Your task to perform on an android device: turn off improve location accuracy Image 0: 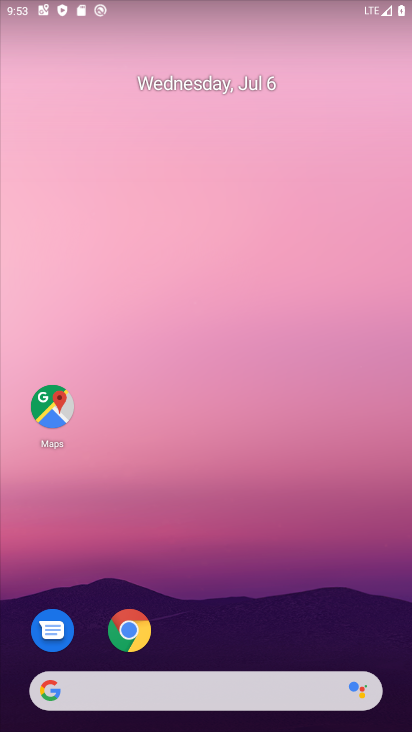
Step 0: drag from (375, 623) to (339, 131)
Your task to perform on an android device: turn off improve location accuracy Image 1: 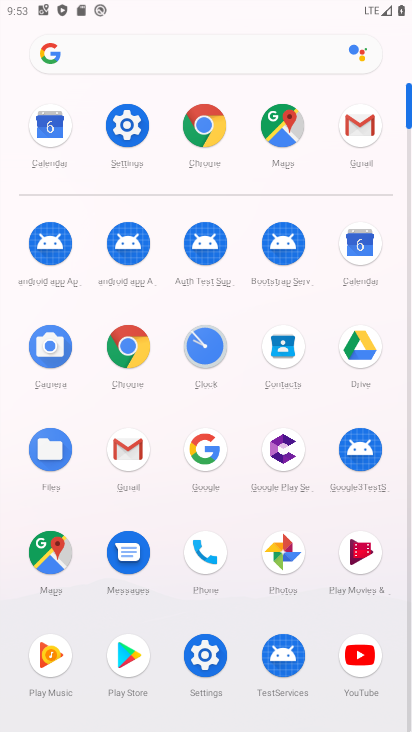
Step 1: click (204, 656)
Your task to perform on an android device: turn off improve location accuracy Image 2: 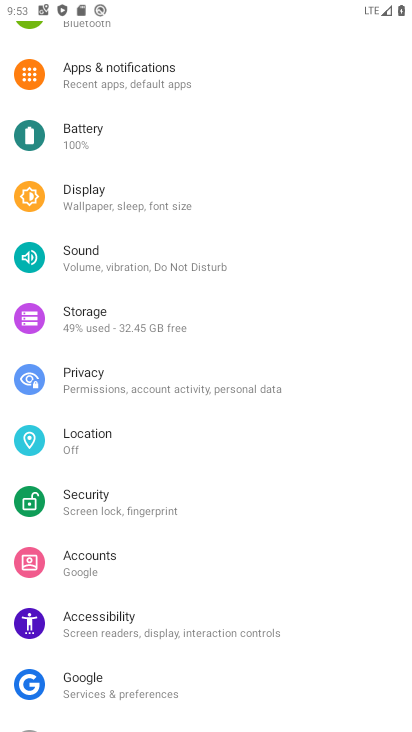
Step 2: click (88, 432)
Your task to perform on an android device: turn off improve location accuracy Image 3: 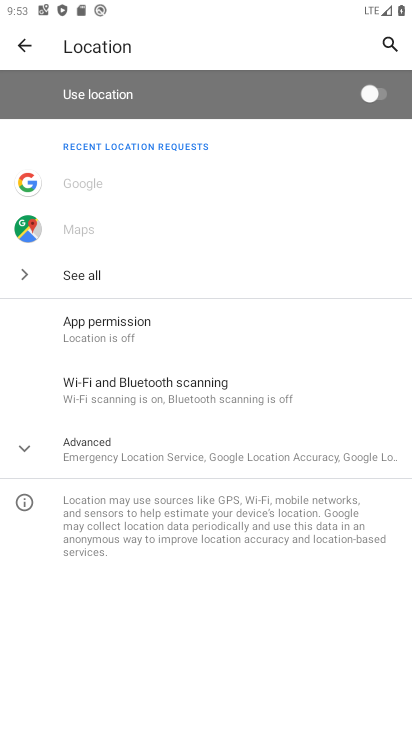
Step 3: click (50, 446)
Your task to perform on an android device: turn off improve location accuracy Image 4: 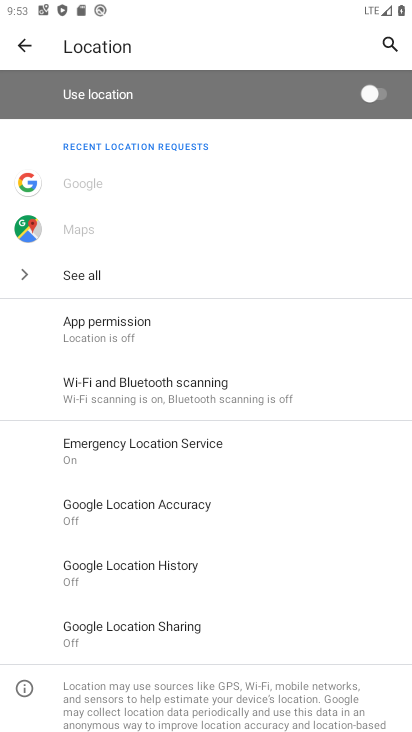
Step 4: click (81, 510)
Your task to perform on an android device: turn off improve location accuracy Image 5: 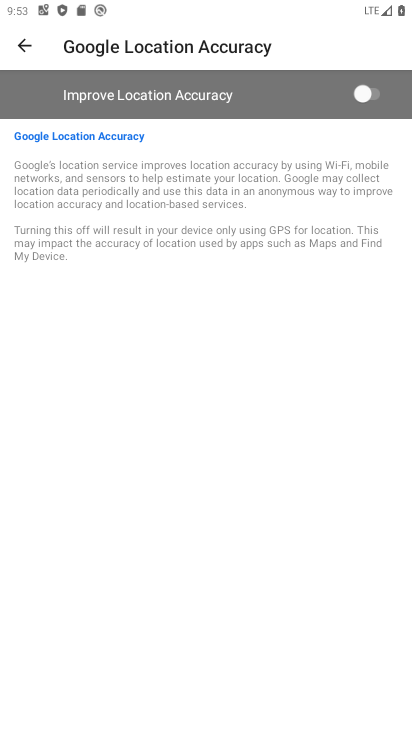
Step 5: task complete